Your task to perform on an android device: Check the weather Image 0: 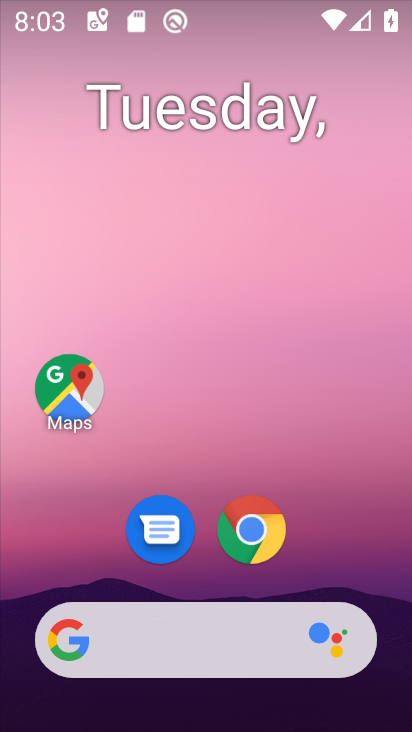
Step 0: click (179, 641)
Your task to perform on an android device: Check the weather Image 1: 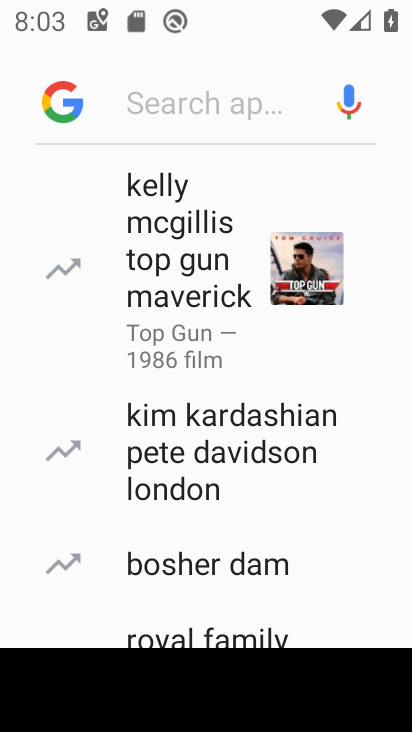
Step 1: type "weather"
Your task to perform on an android device: Check the weather Image 2: 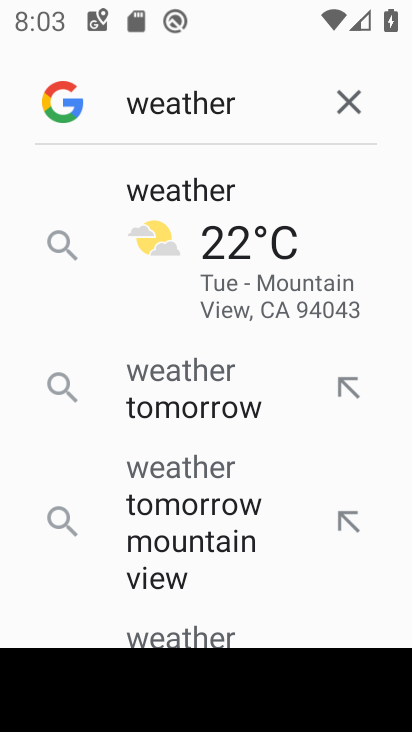
Step 2: click (200, 242)
Your task to perform on an android device: Check the weather Image 3: 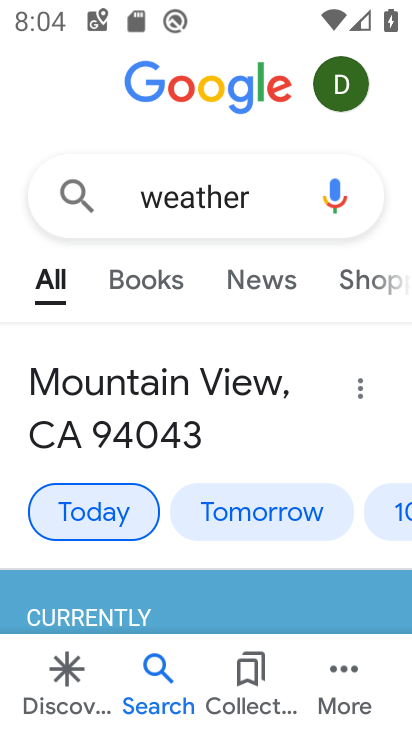
Step 3: task complete